Your task to perform on an android device: Search for Italian restaurants on Maps Image 0: 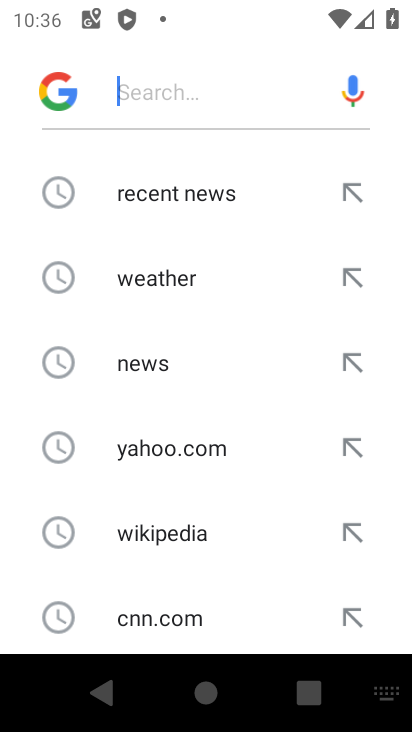
Step 0: press home button
Your task to perform on an android device: Search for Italian restaurants on Maps Image 1: 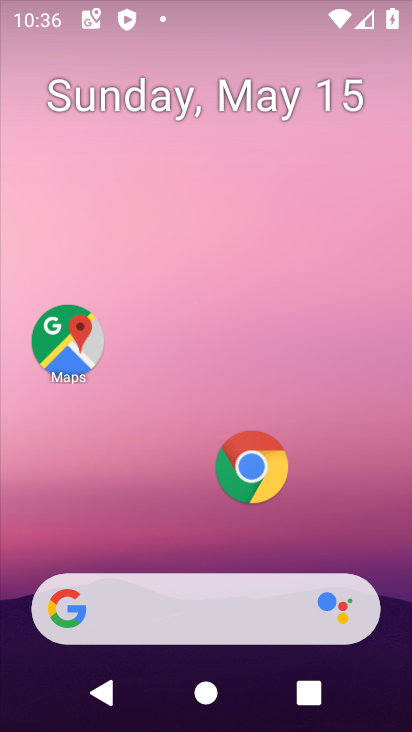
Step 1: drag from (216, 546) to (185, 6)
Your task to perform on an android device: Search for Italian restaurants on Maps Image 2: 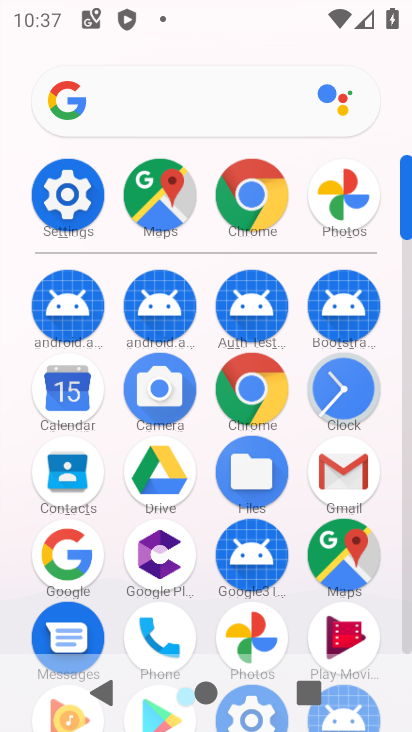
Step 2: click (322, 548)
Your task to perform on an android device: Search for Italian restaurants on Maps Image 3: 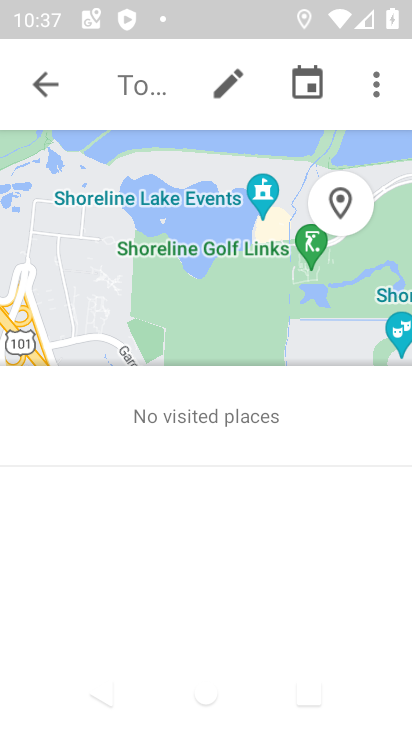
Step 3: drag from (396, 490) to (408, 102)
Your task to perform on an android device: Search for Italian restaurants on Maps Image 4: 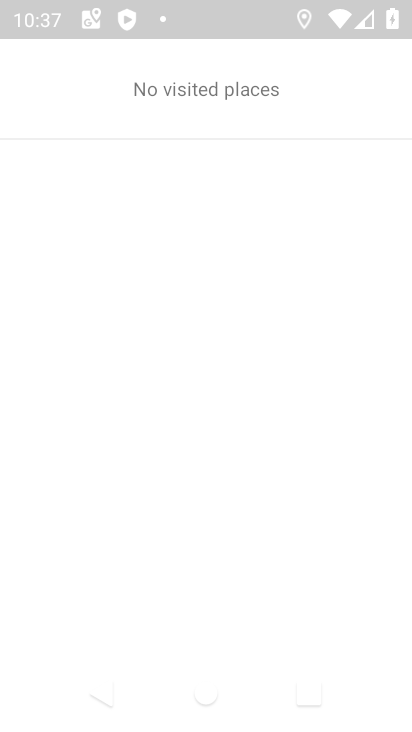
Step 4: drag from (234, 477) to (245, 110)
Your task to perform on an android device: Search for Italian restaurants on Maps Image 5: 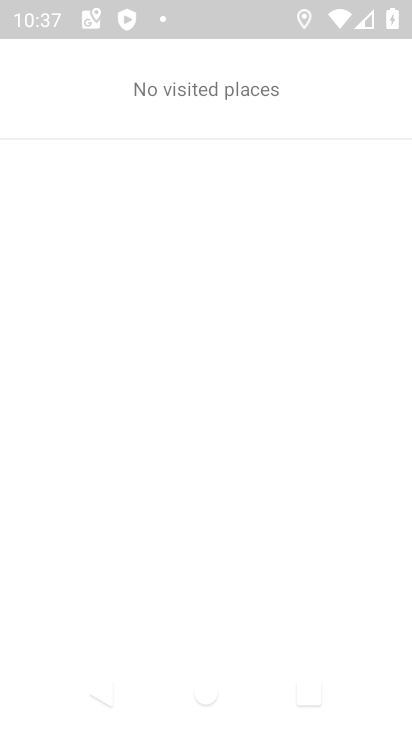
Step 5: click (245, 94)
Your task to perform on an android device: Search for Italian restaurants on Maps Image 6: 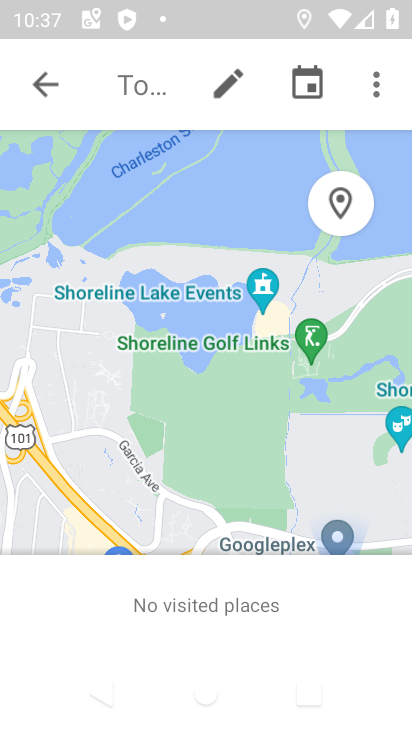
Step 6: click (231, 70)
Your task to perform on an android device: Search for Italian restaurants on Maps Image 7: 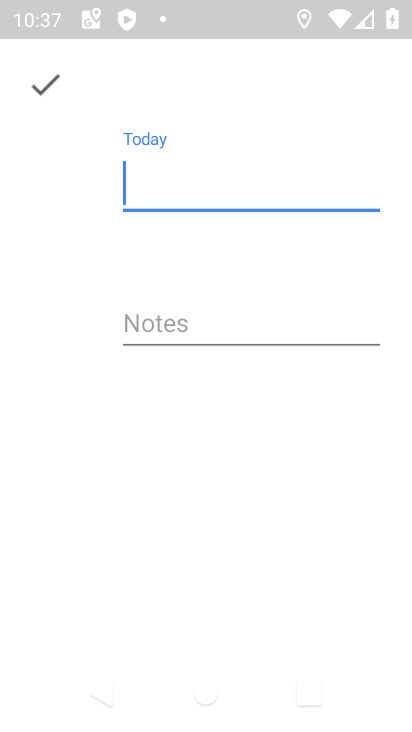
Step 7: click (45, 87)
Your task to perform on an android device: Search for Italian restaurants on Maps Image 8: 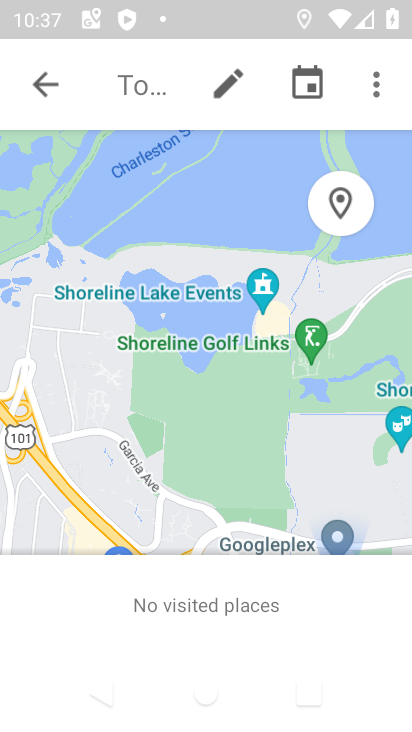
Step 8: click (63, 85)
Your task to perform on an android device: Search for Italian restaurants on Maps Image 9: 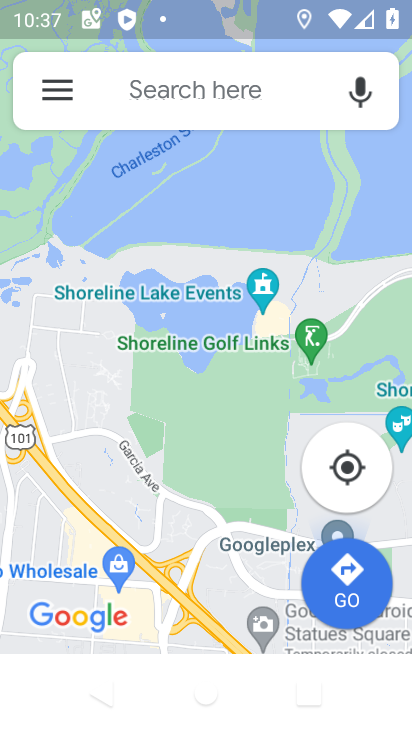
Step 9: click (228, 108)
Your task to perform on an android device: Search for Italian restaurants on Maps Image 10: 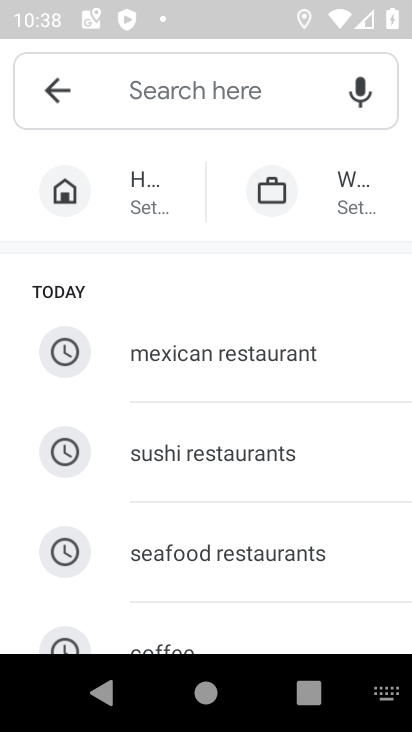
Step 10: drag from (233, 536) to (218, 155)
Your task to perform on an android device: Search for Italian restaurants on Maps Image 11: 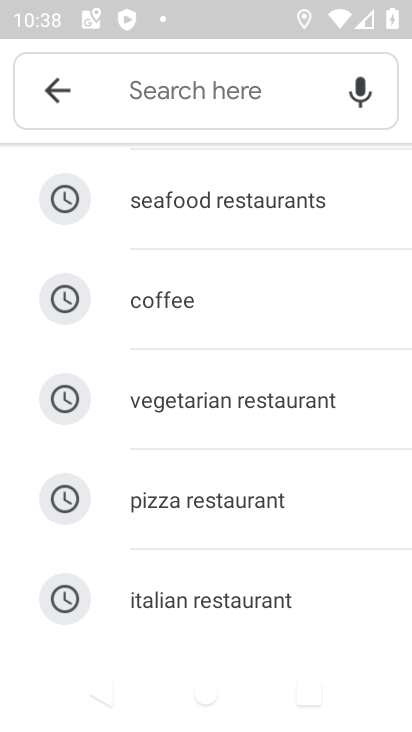
Step 11: click (179, 586)
Your task to perform on an android device: Search for Italian restaurants on Maps Image 12: 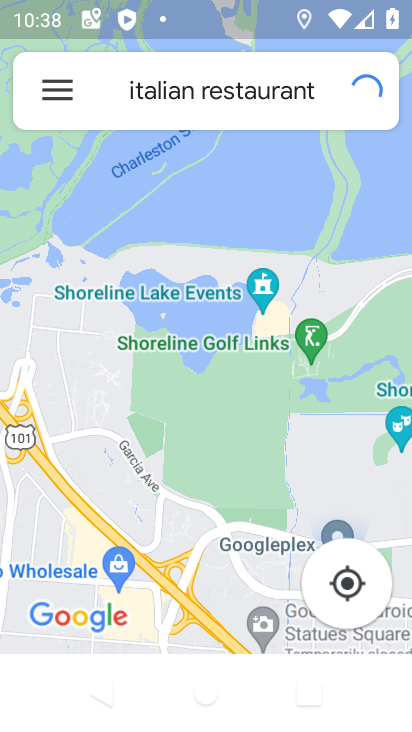
Step 12: task complete